Your task to perform on an android device: toggle priority inbox in the gmail app Image 0: 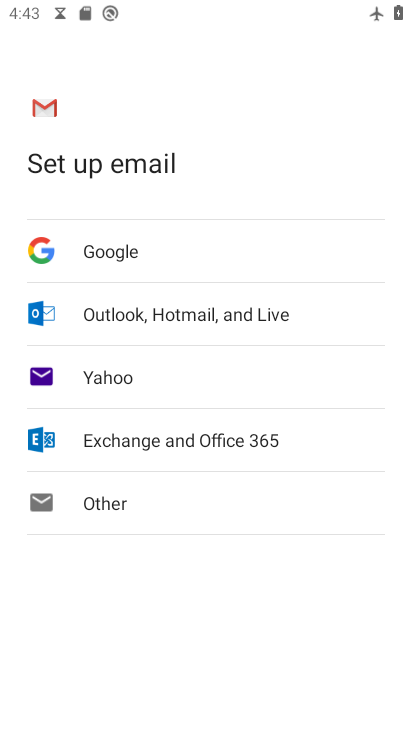
Step 0: press home button
Your task to perform on an android device: toggle priority inbox in the gmail app Image 1: 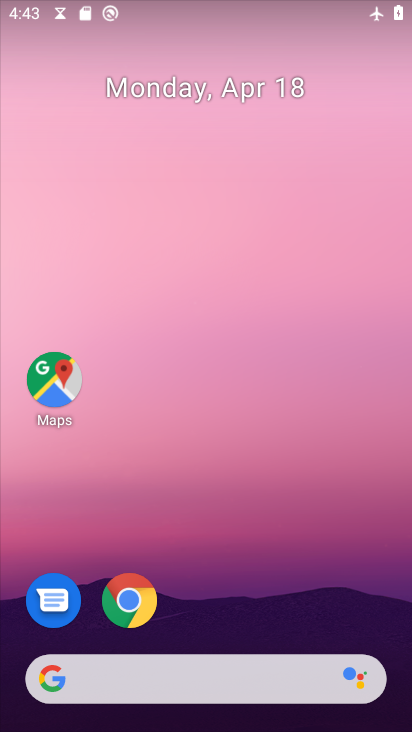
Step 1: drag from (252, 568) to (370, 40)
Your task to perform on an android device: toggle priority inbox in the gmail app Image 2: 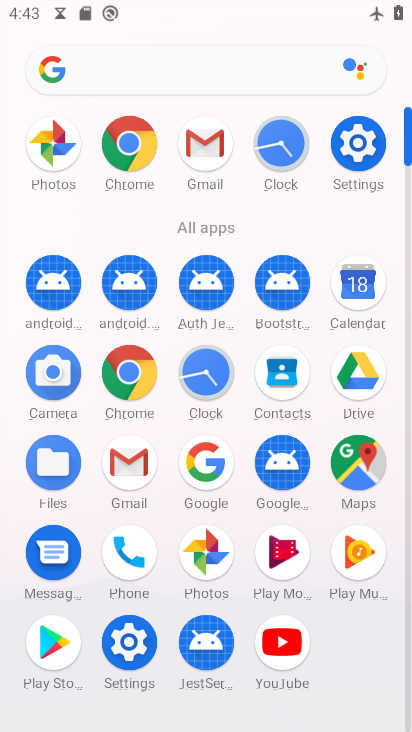
Step 2: click (127, 463)
Your task to perform on an android device: toggle priority inbox in the gmail app Image 3: 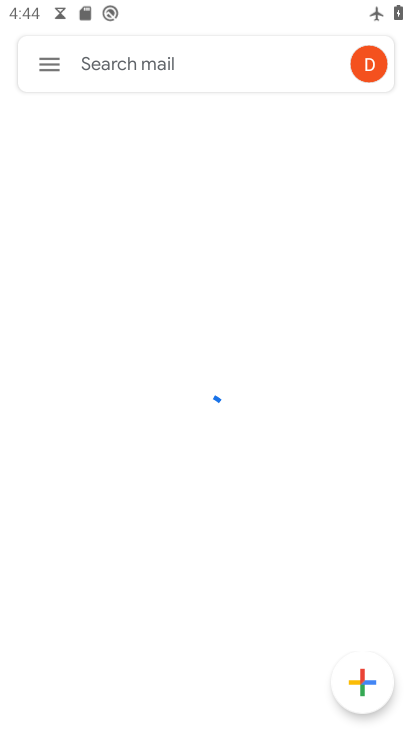
Step 3: click (44, 62)
Your task to perform on an android device: toggle priority inbox in the gmail app Image 4: 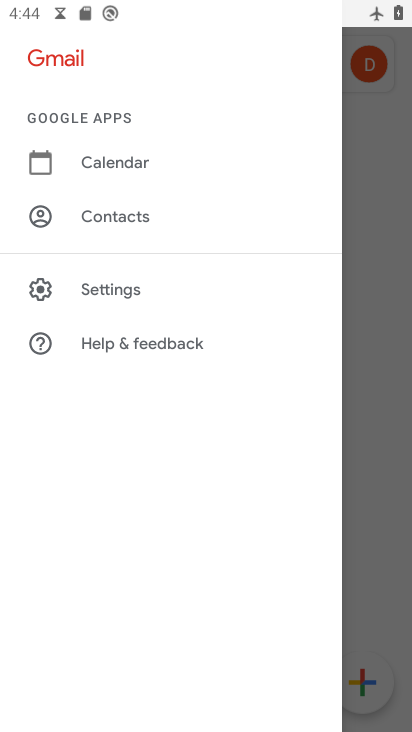
Step 4: click (114, 295)
Your task to perform on an android device: toggle priority inbox in the gmail app Image 5: 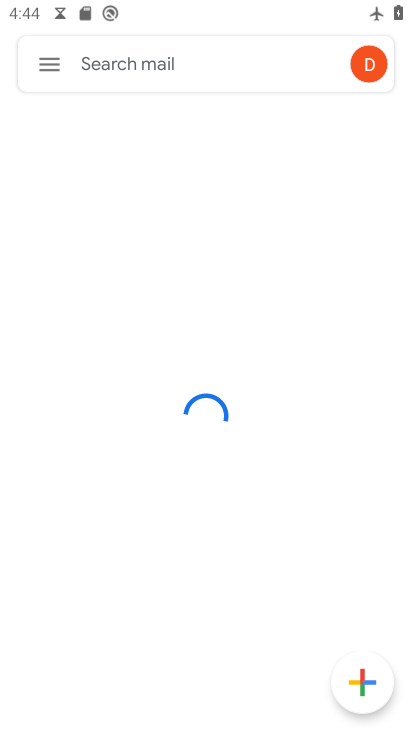
Step 5: click (38, 65)
Your task to perform on an android device: toggle priority inbox in the gmail app Image 6: 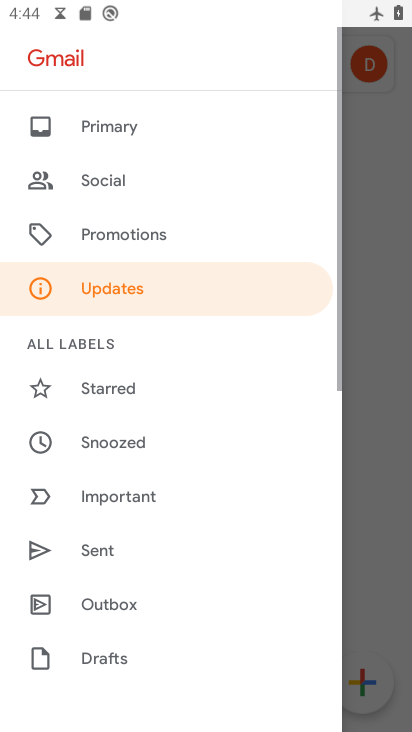
Step 6: drag from (110, 569) to (162, 217)
Your task to perform on an android device: toggle priority inbox in the gmail app Image 7: 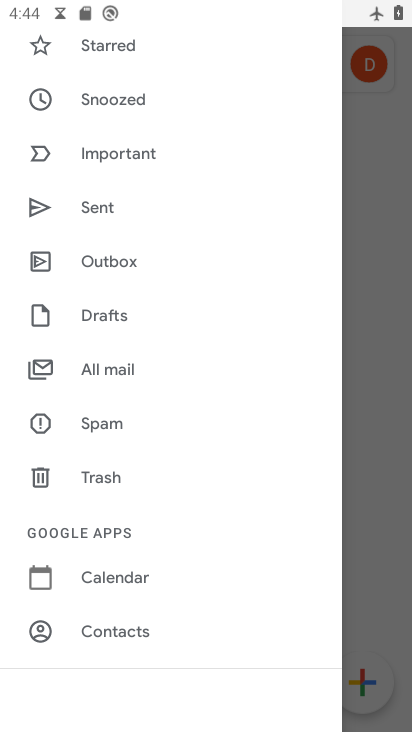
Step 7: drag from (133, 600) to (237, 77)
Your task to perform on an android device: toggle priority inbox in the gmail app Image 8: 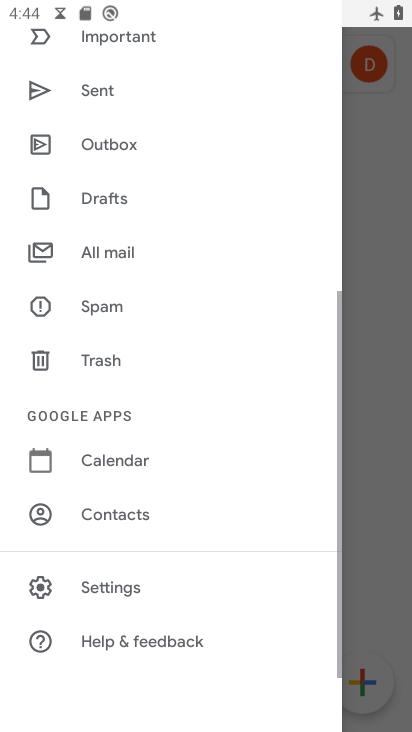
Step 8: click (118, 577)
Your task to perform on an android device: toggle priority inbox in the gmail app Image 9: 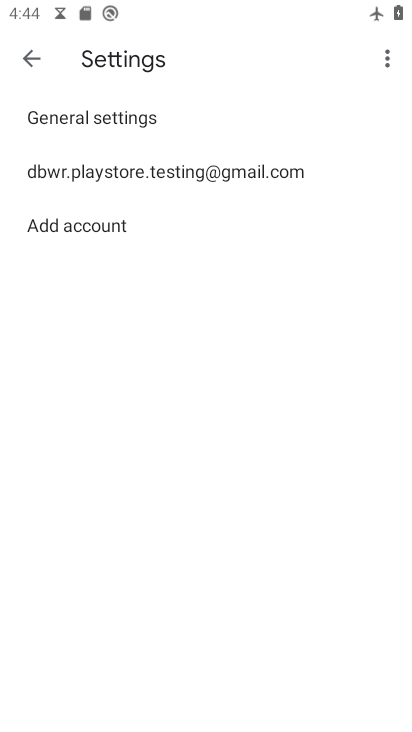
Step 9: click (167, 174)
Your task to perform on an android device: toggle priority inbox in the gmail app Image 10: 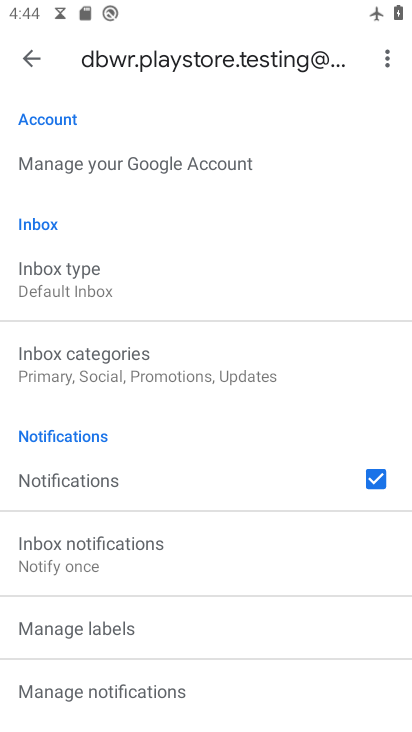
Step 10: click (99, 303)
Your task to perform on an android device: toggle priority inbox in the gmail app Image 11: 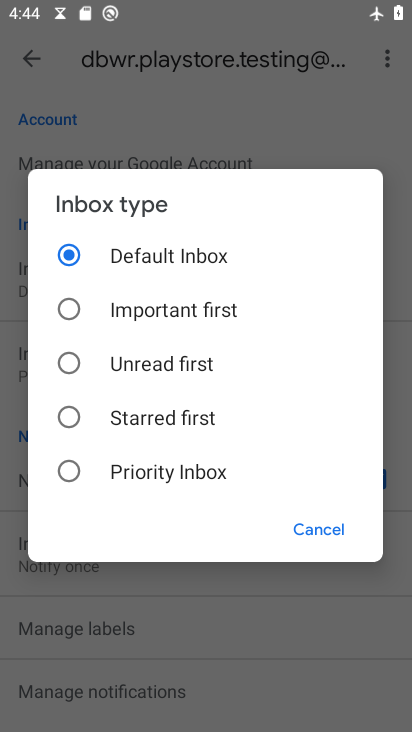
Step 11: click (72, 473)
Your task to perform on an android device: toggle priority inbox in the gmail app Image 12: 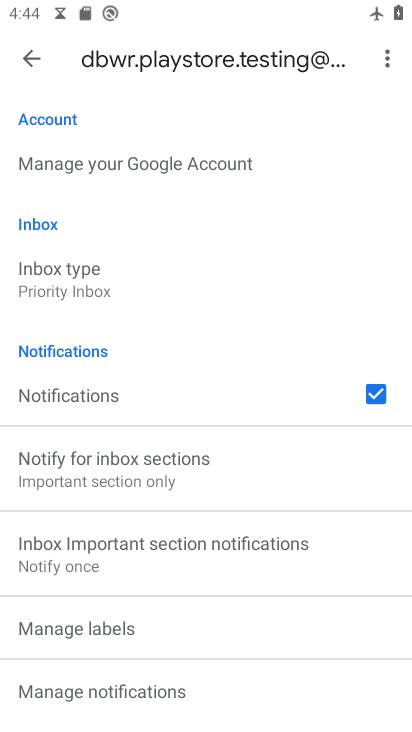
Step 12: task complete